Your task to perform on an android device: Go to settings Image 0: 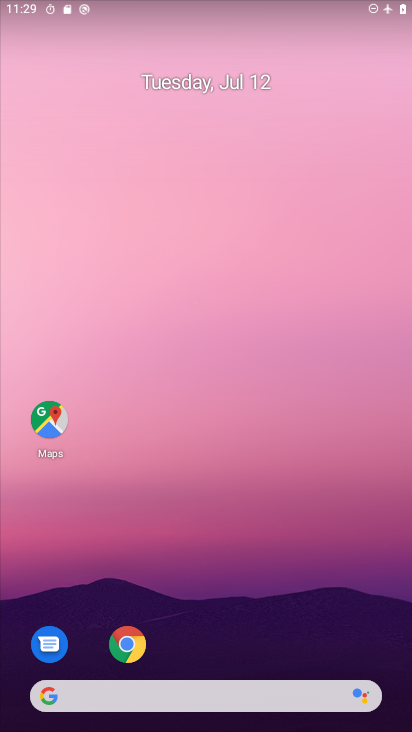
Step 0: drag from (232, 628) to (235, 82)
Your task to perform on an android device: Go to settings Image 1: 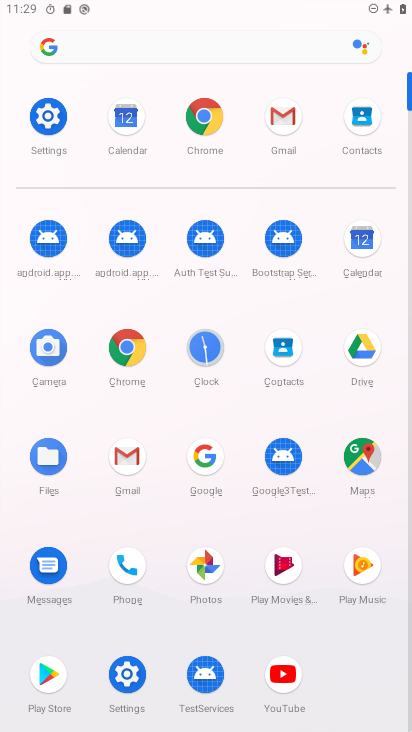
Step 1: click (46, 118)
Your task to perform on an android device: Go to settings Image 2: 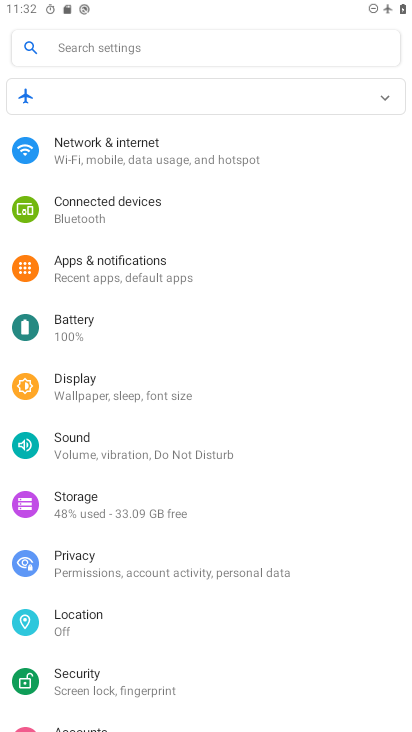
Step 2: task complete